Your task to perform on an android device: Open calendar and show me the fourth week of next month Image 0: 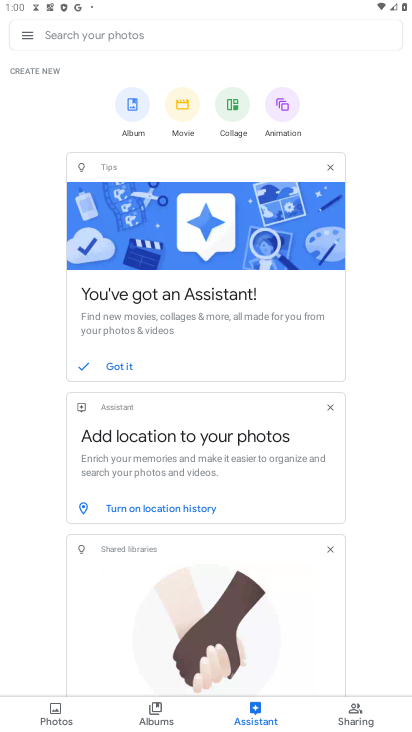
Step 0: press home button
Your task to perform on an android device: Open calendar and show me the fourth week of next month Image 1: 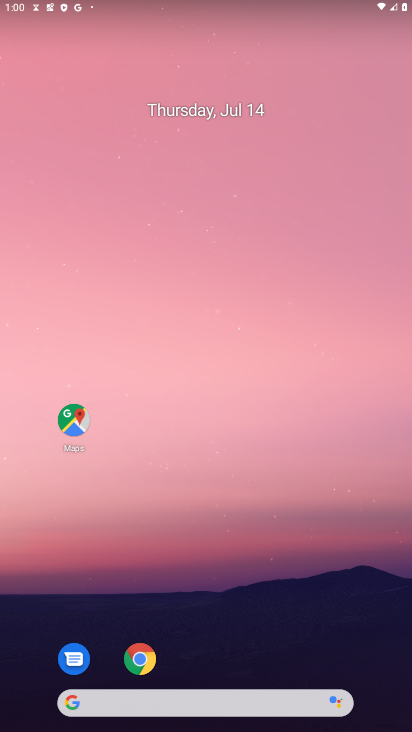
Step 1: drag from (26, 717) to (299, 57)
Your task to perform on an android device: Open calendar and show me the fourth week of next month Image 2: 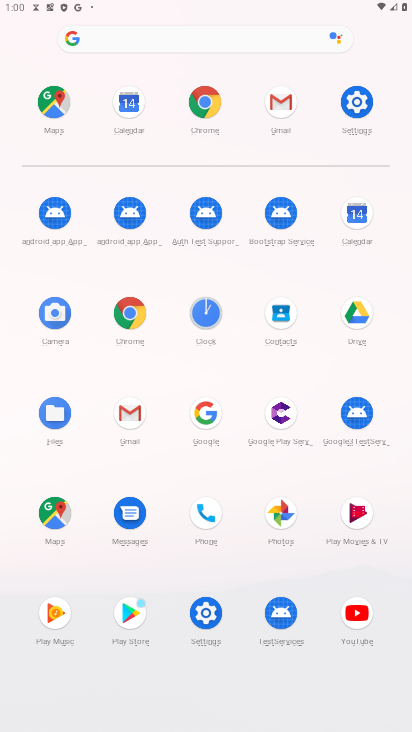
Step 2: click (367, 208)
Your task to perform on an android device: Open calendar and show me the fourth week of next month Image 3: 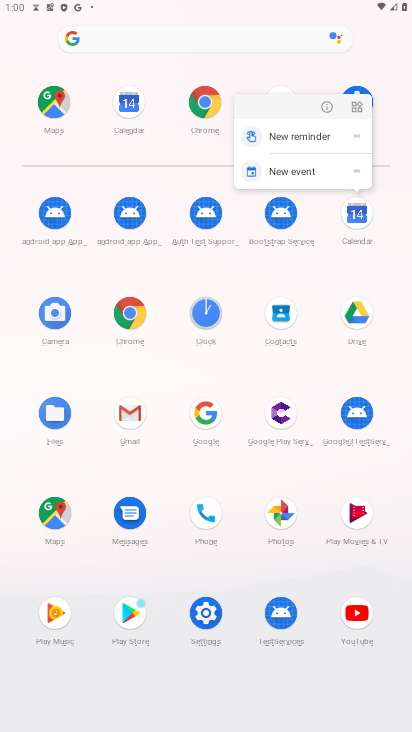
Step 3: click (349, 221)
Your task to perform on an android device: Open calendar and show me the fourth week of next month Image 4: 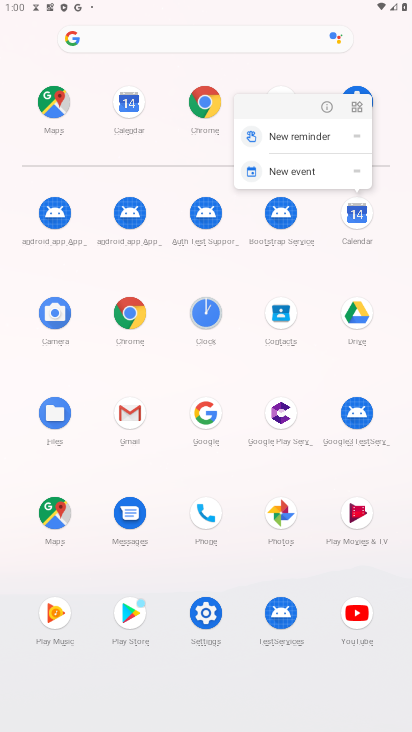
Step 4: click (355, 215)
Your task to perform on an android device: Open calendar and show me the fourth week of next month Image 5: 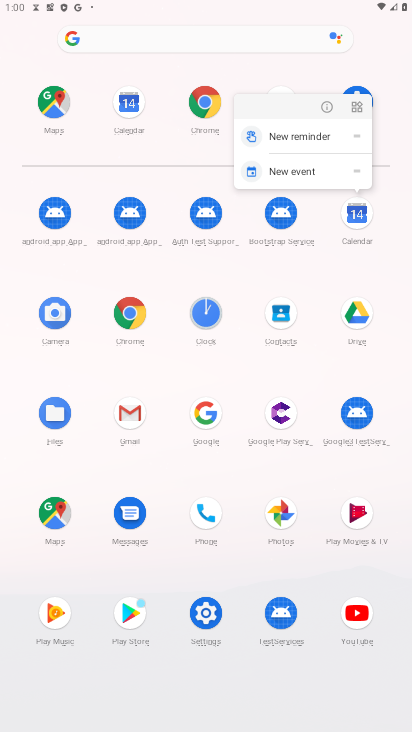
Step 5: click (358, 211)
Your task to perform on an android device: Open calendar and show me the fourth week of next month Image 6: 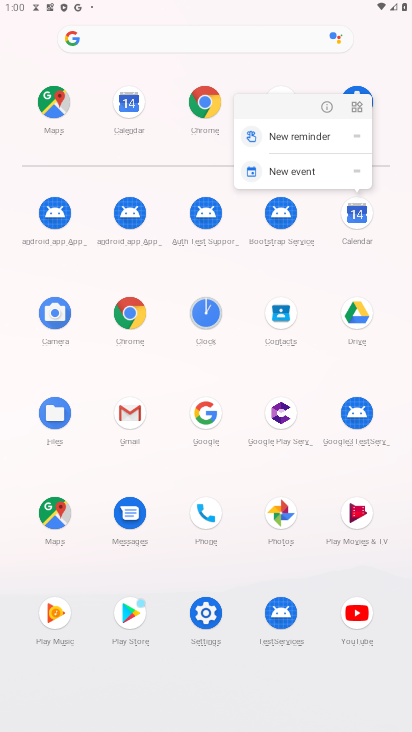
Step 6: click (350, 208)
Your task to perform on an android device: Open calendar and show me the fourth week of next month Image 7: 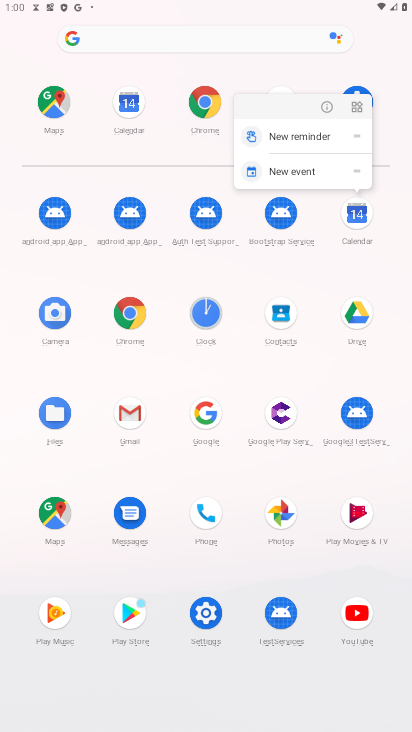
Step 7: task complete